Your task to perform on an android device: turn vacation reply on in the gmail app Image 0: 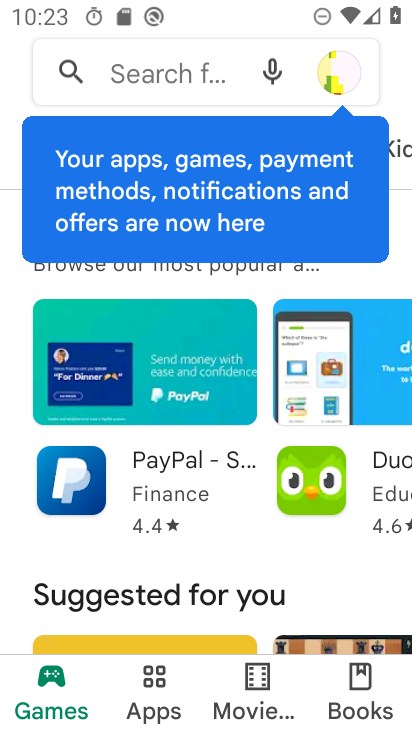
Step 0: drag from (279, 537) to (252, 46)
Your task to perform on an android device: turn vacation reply on in the gmail app Image 1: 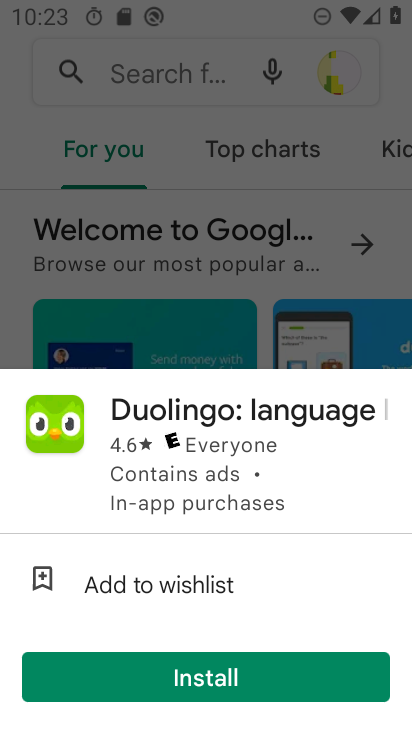
Step 1: press back button
Your task to perform on an android device: turn vacation reply on in the gmail app Image 2: 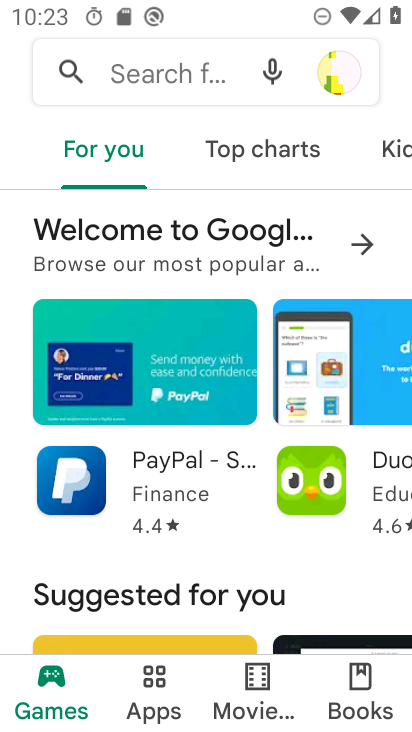
Step 2: press back button
Your task to perform on an android device: turn vacation reply on in the gmail app Image 3: 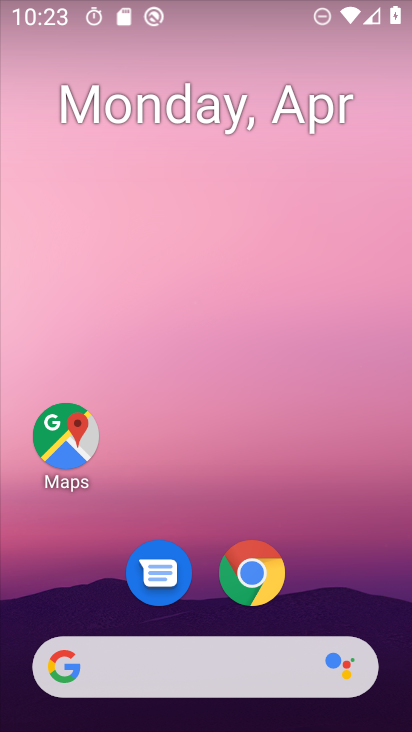
Step 3: drag from (326, 505) to (344, 1)
Your task to perform on an android device: turn vacation reply on in the gmail app Image 4: 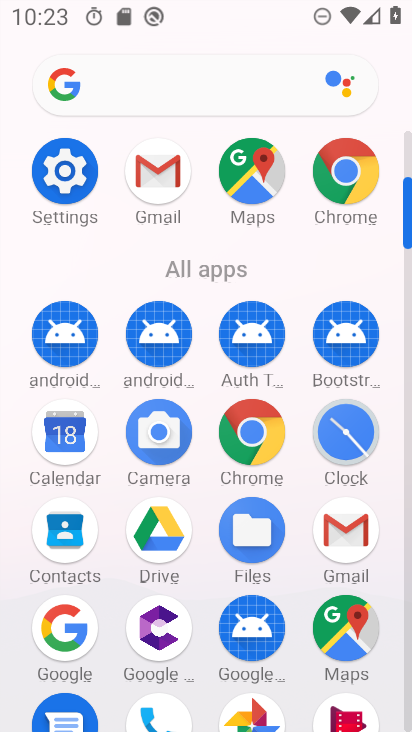
Step 4: click (340, 533)
Your task to perform on an android device: turn vacation reply on in the gmail app Image 5: 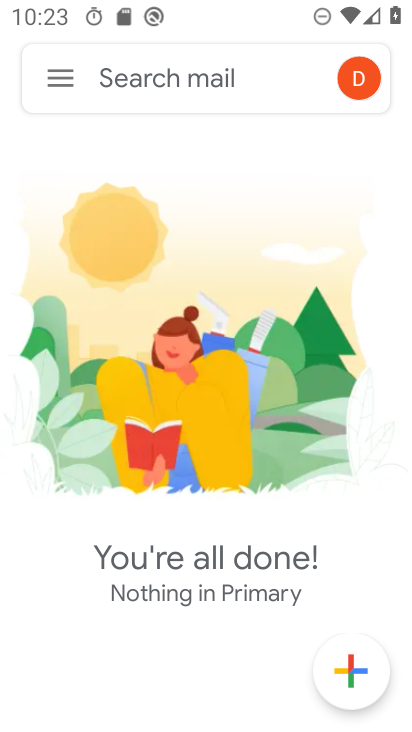
Step 5: click (59, 71)
Your task to perform on an android device: turn vacation reply on in the gmail app Image 6: 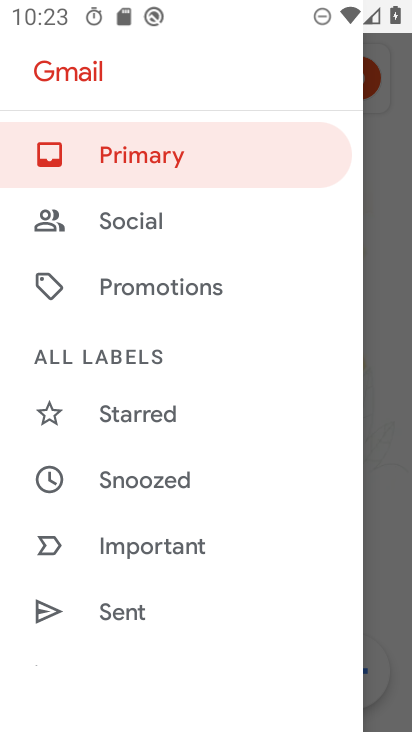
Step 6: drag from (154, 607) to (192, 219)
Your task to perform on an android device: turn vacation reply on in the gmail app Image 7: 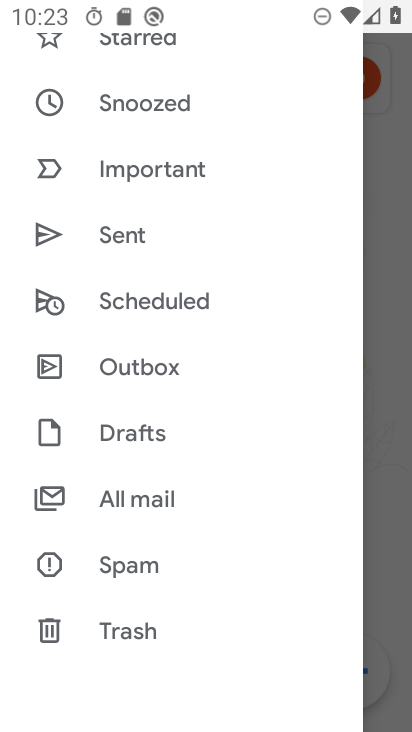
Step 7: drag from (205, 497) to (178, 130)
Your task to perform on an android device: turn vacation reply on in the gmail app Image 8: 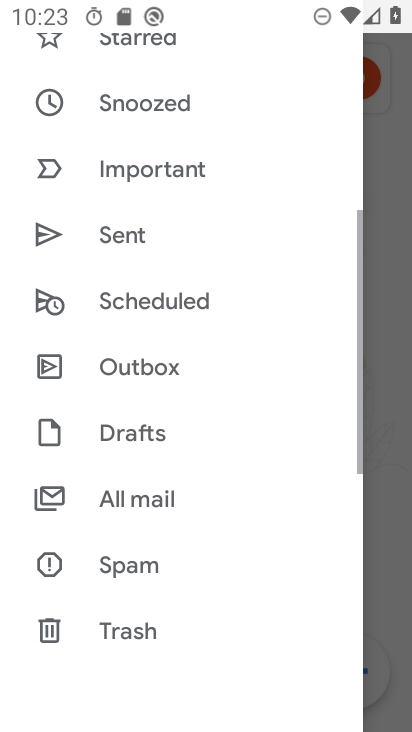
Step 8: drag from (104, 540) to (66, 161)
Your task to perform on an android device: turn vacation reply on in the gmail app Image 9: 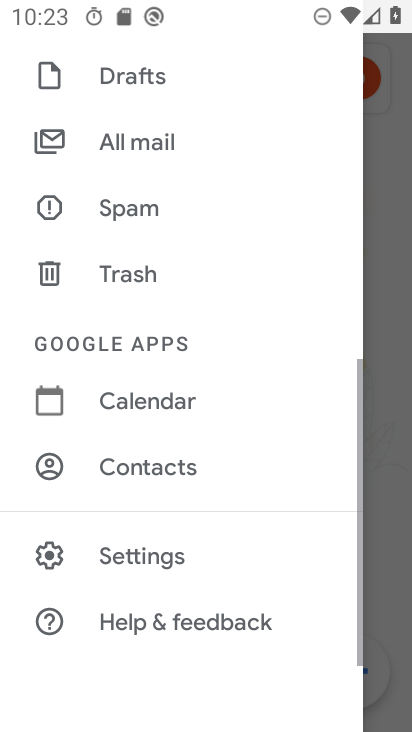
Step 9: click (153, 560)
Your task to perform on an android device: turn vacation reply on in the gmail app Image 10: 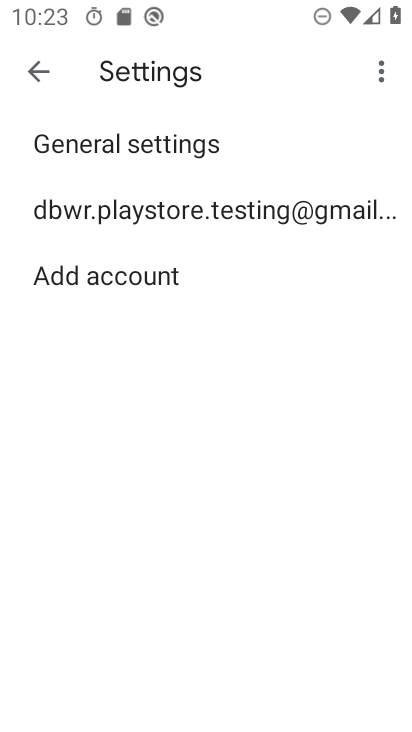
Step 10: click (133, 212)
Your task to perform on an android device: turn vacation reply on in the gmail app Image 11: 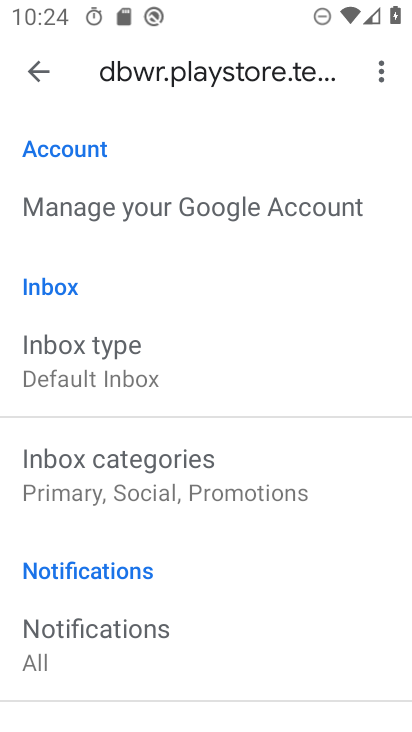
Step 11: drag from (168, 638) to (241, 264)
Your task to perform on an android device: turn vacation reply on in the gmail app Image 12: 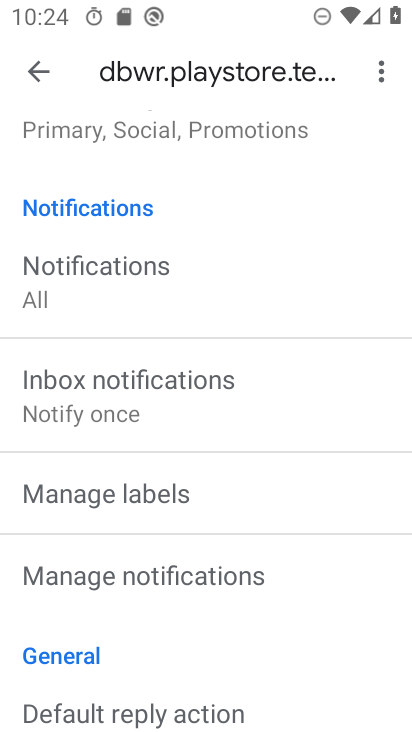
Step 12: drag from (268, 552) to (278, 158)
Your task to perform on an android device: turn vacation reply on in the gmail app Image 13: 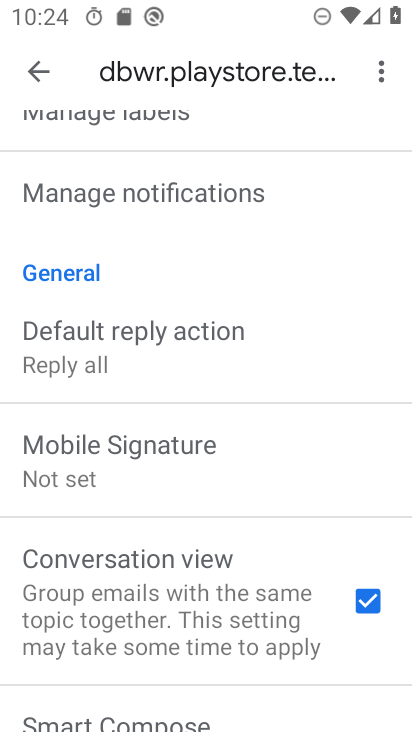
Step 13: drag from (293, 602) to (237, 168)
Your task to perform on an android device: turn vacation reply on in the gmail app Image 14: 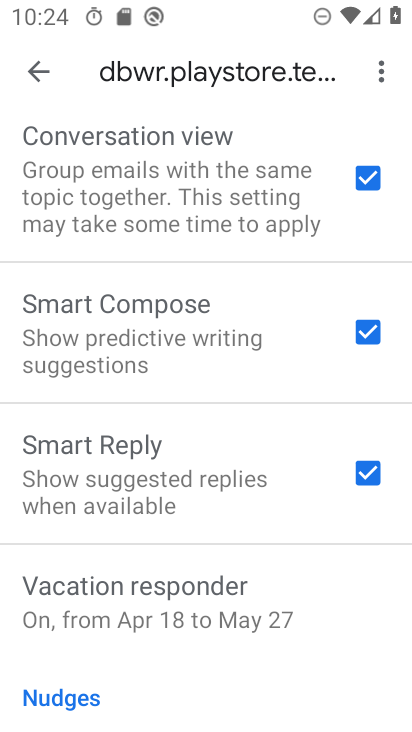
Step 14: drag from (170, 618) to (159, 197)
Your task to perform on an android device: turn vacation reply on in the gmail app Image 15: 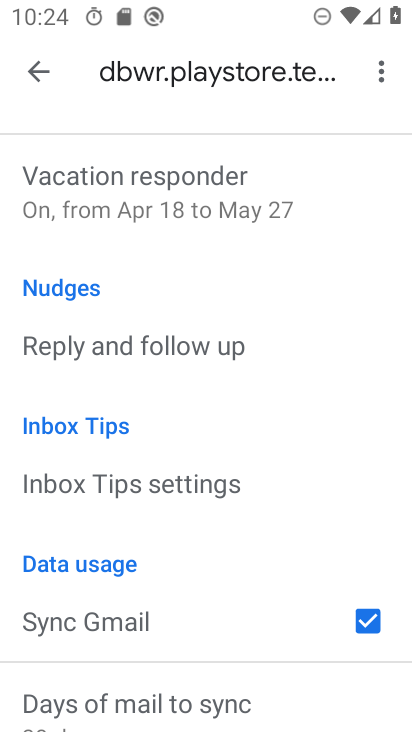
Step 15: click (159, 198)
Your task to perform on an android device: turn vacation reply on in the gmail app Image 16: 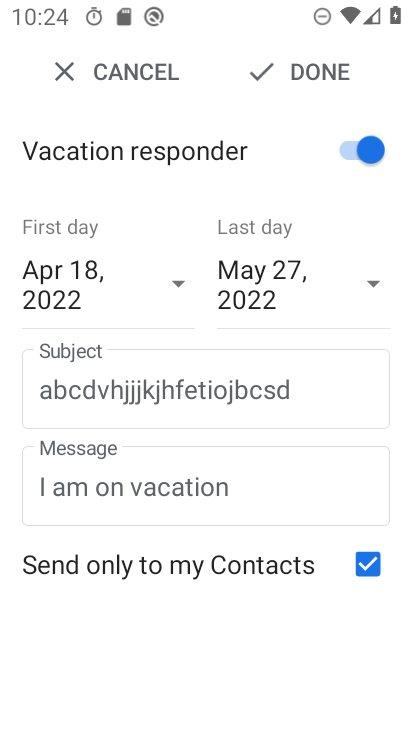
Step 16: task complete